Your task to perform on an android device: open the mobile data screen to see how much data has been used Image 0: 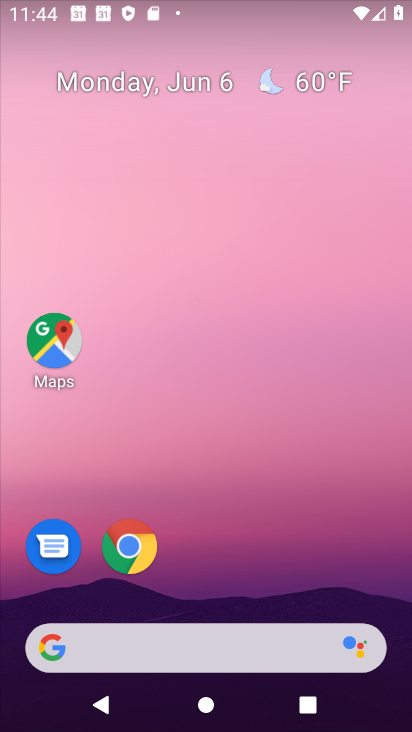
Step 0: drag from (251, 531) to (75, 3)
Your task to perform on an android device: open the mobile data screen to see how much data has been used Image 1: 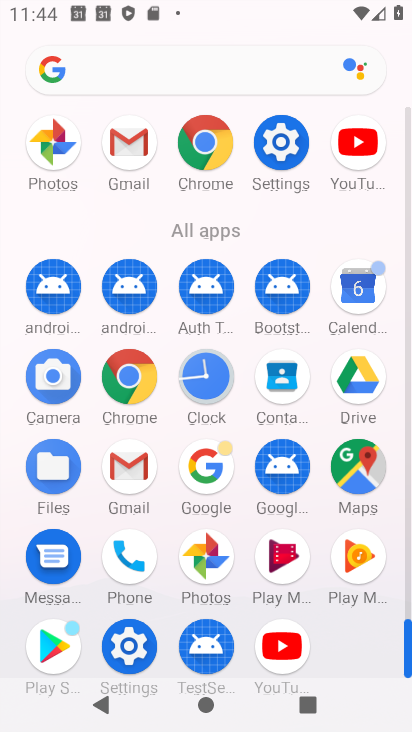
Step 1: click (270, 131)
Your task to perform on an android device: open the mobile data screen to see how much data has been used Image 2: 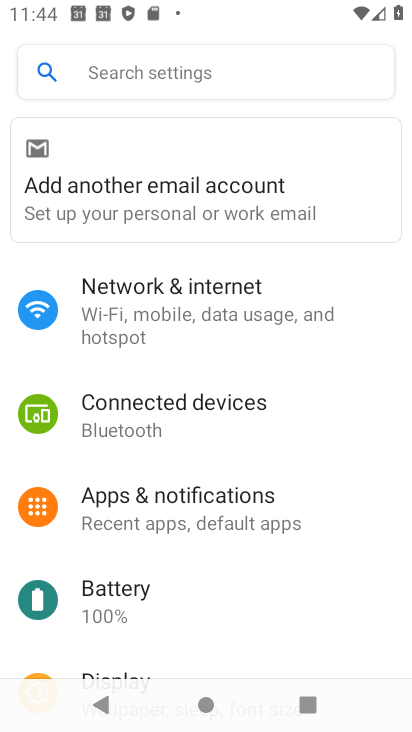
Step 2: click (170, 297)
Your task to perform on an android device: open the mobile data screen to see how much data has been used Image 3: 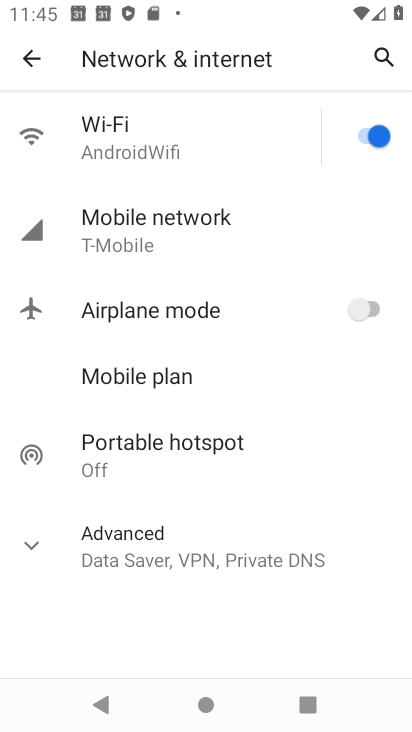
Step 3: click (150, 236)
Your task to perform on an android device: open the mobile data screen to see how much data has been used Image 4: 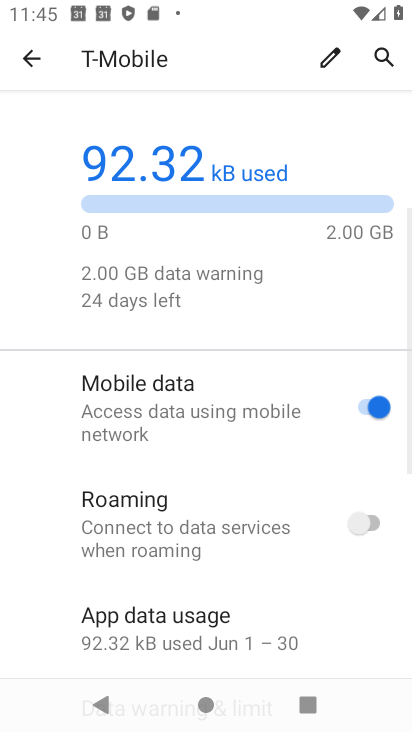
Step 4: drag from (176, 358) to (135, 130)
Your task to perform on an android device: open the mobile data screen to see how much data has been used Image 5: 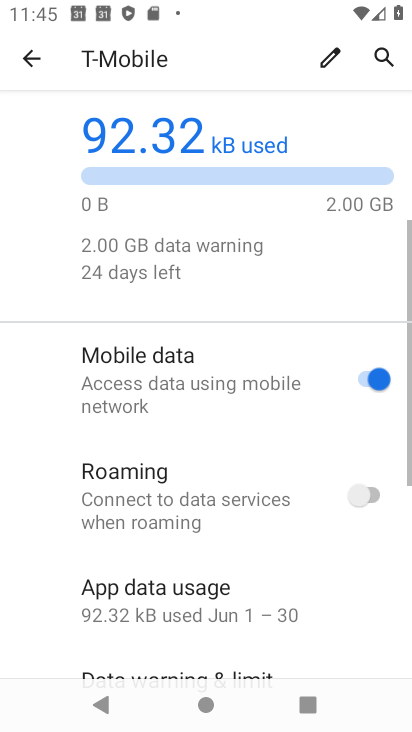
Step 5: drag from (246, 497) to (169, 121)
Your task to perform on an android device: open the mobile data screen to see how much data has been used Image 6: 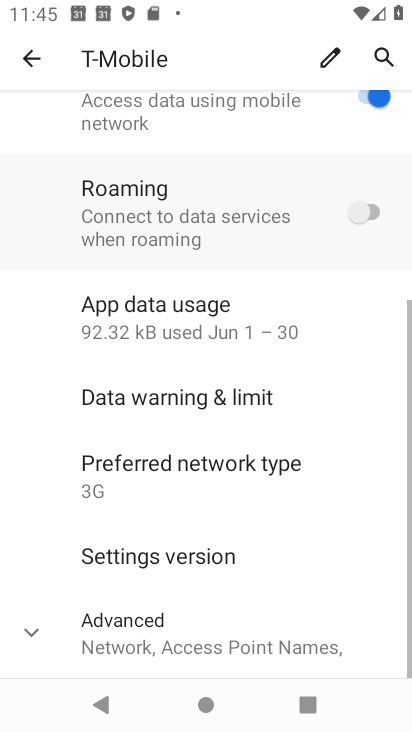
Step 6: drag from (217, 362) to (159, 131)
Your task to perform on an android device: open the mobile data screen to see how much data has been used Image 7: 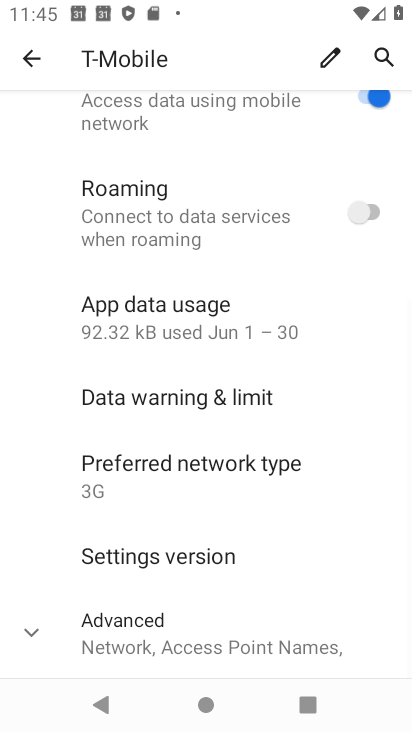
Step 7: drag from (173, 509) to (109, 110)
Your task to perform on an android device: open the mobile data screen to see how much data has been used Image 8: 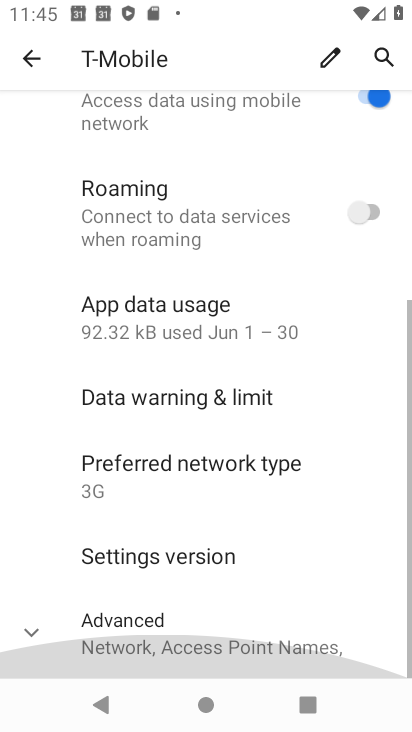
Step 8: drag from (193, 544) to (139, 194)
Your task to perform on an android device: open the mobile data screen to see how much data has been used Image 9: 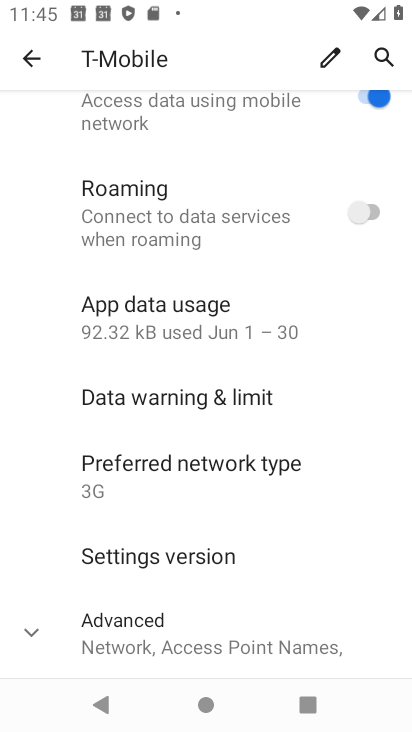
Step 9: drag from (190, 519) to (170, 201)
Your task to perform on an android device: open the mobile data screen to see how much data has been used Image 10: 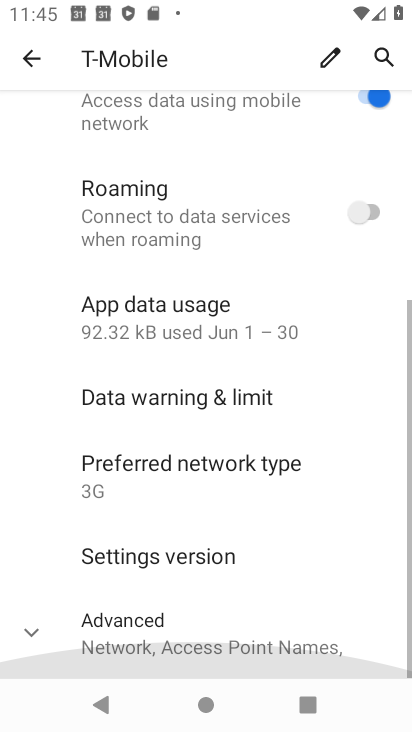
Step 10: drag from (211, 476) to (131, 163)
Your task to perform on an android device: open the mobile data screen to see how much data has been used Image 11: 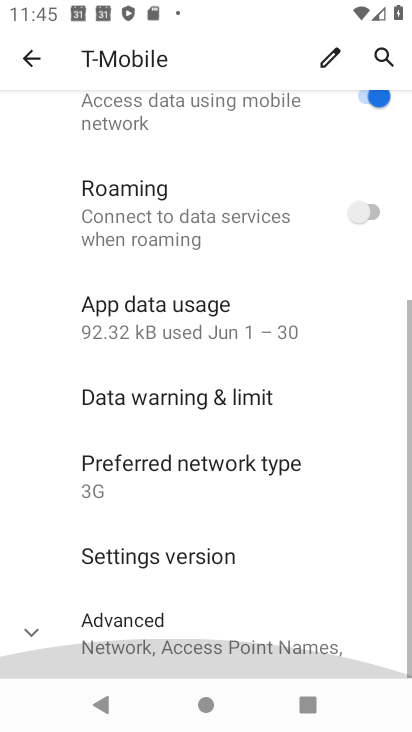
Step 11: drag from (213, 497) to (178, 226)
Your task to perform on an android device: open the mobile data screen to see how much data has been used Image 12: 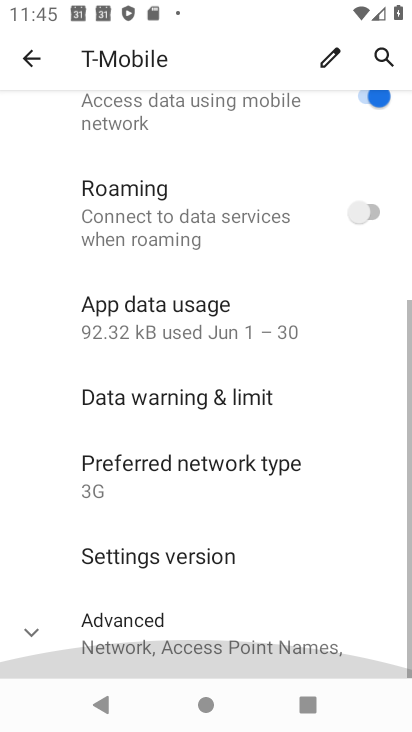
Step 12: drag from (239, 509) to (192, 198)
Your task to perform on an android device: open the mobile data screen to see how much data has been used Image 13: 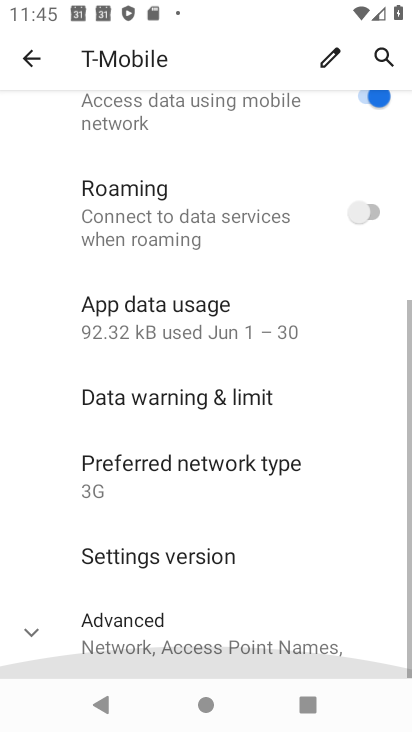
Step 13: drag from (192, 537) to (145, 215)
Your task to perform on an android device: open the mobile data screen to see how much data has been used Image 14: 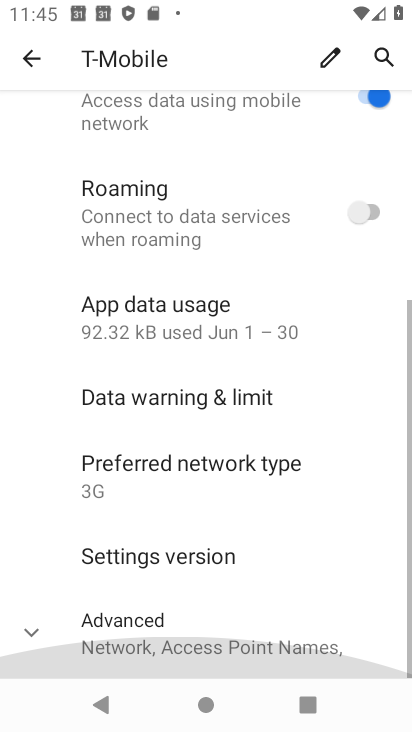
Step 14: drag from (149, 556) to (103, 260)
Your task to perform on an android device: open the mobile data screen to see how much data has been used Image 15: 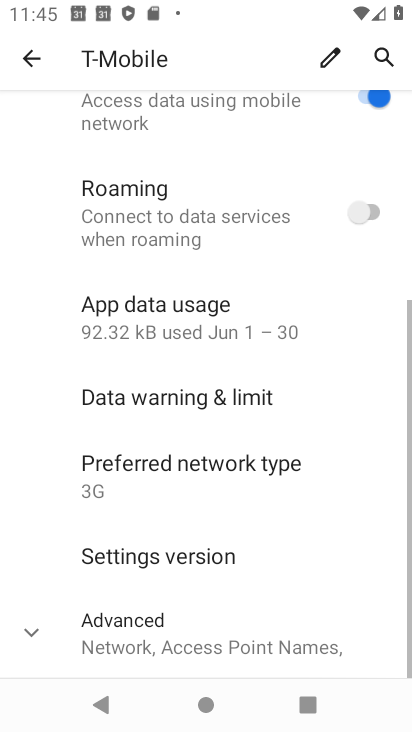
Step 15: drag from (90, 184) to (134, 540)
Your task to perform on an android device: open the mobile data screen to see how much data has been used Image 16: 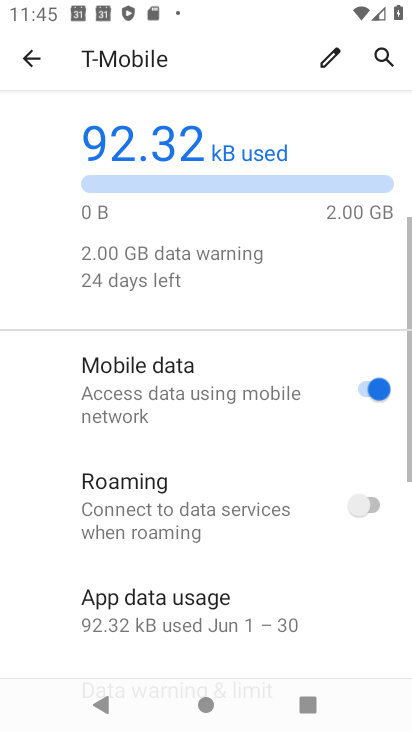
Step 16: drag from (130, 216) to (156, 619)
Your task to perform on an android device: open the mobile data screen to see how much data has been used Image 17: 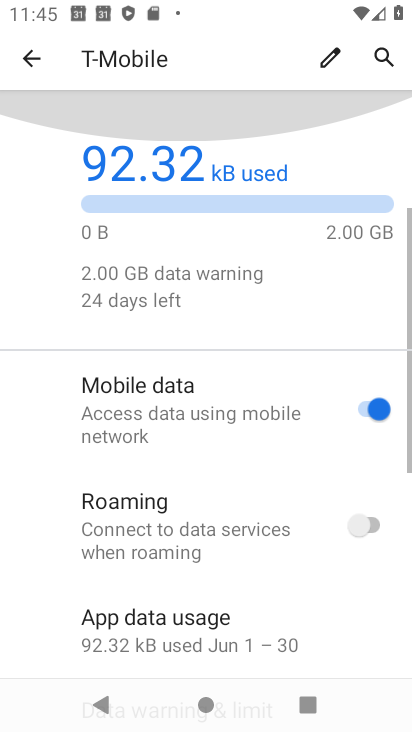
Step 17: drag from (133, 301) to (146, 674)
Your task to perform on an android device: open the mobile data screen to see how much data has been used Image 18: 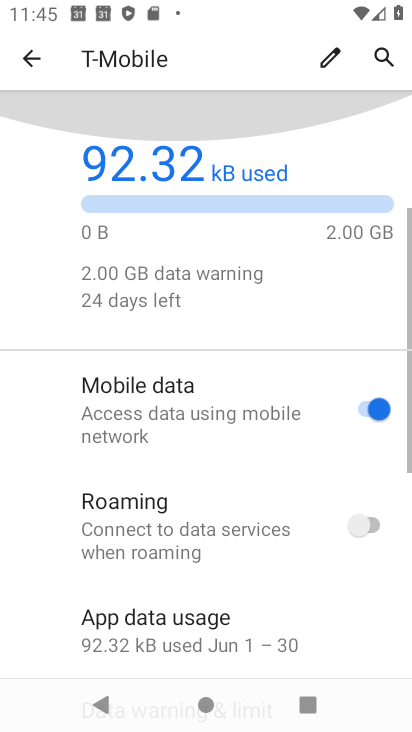
Step 18: drag from (96, 285) to (133, 548)
Your task to perform on an android device: open the mobile data screen to see how much data has been used Image 19: 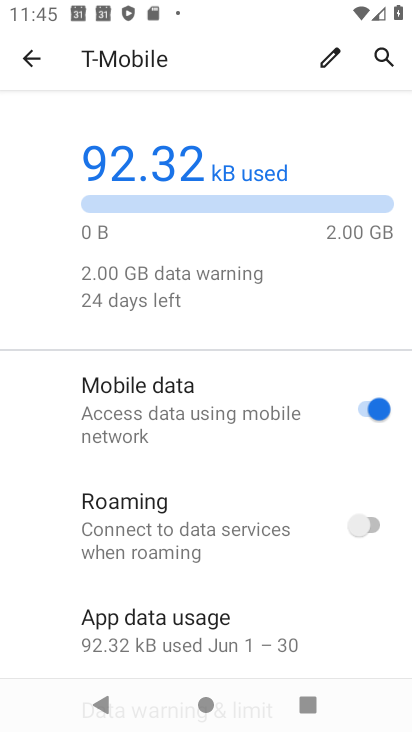
Step 19: click (28, 55)
Your task to perform on an android device: open the mobile data screen to see how much data has been used Image 20: 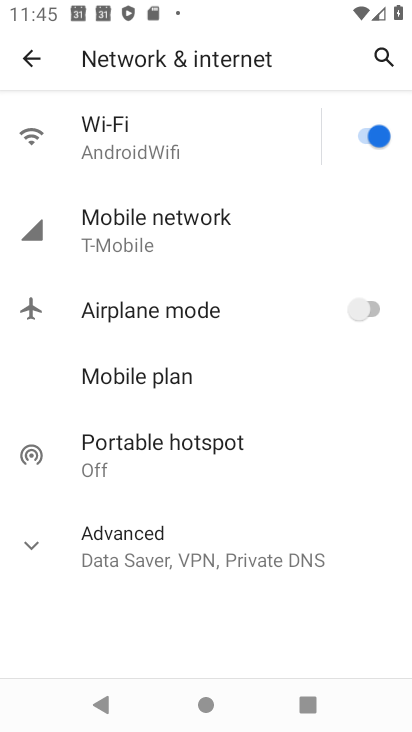
Step 20: task complete